Your task to perform on an android device: Is it going to rain today? Image 0: 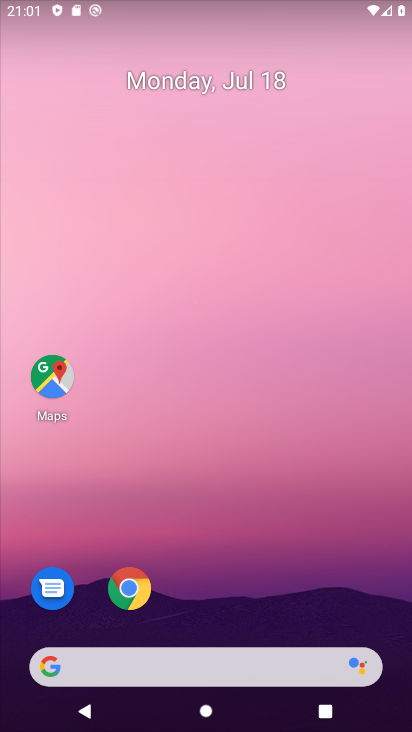
Step 0: press home button
Your task to perform on an android device: Is it going to rain today? Image 1: 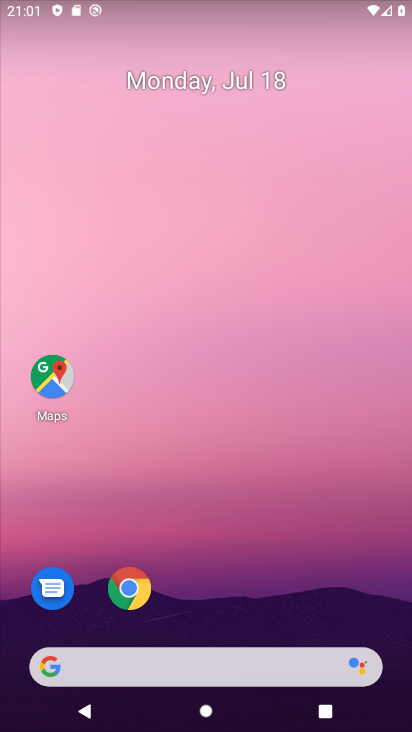
Step 1: click (133, 660)
Your task to perform on an android device: Is it going to rain today? Image 2: 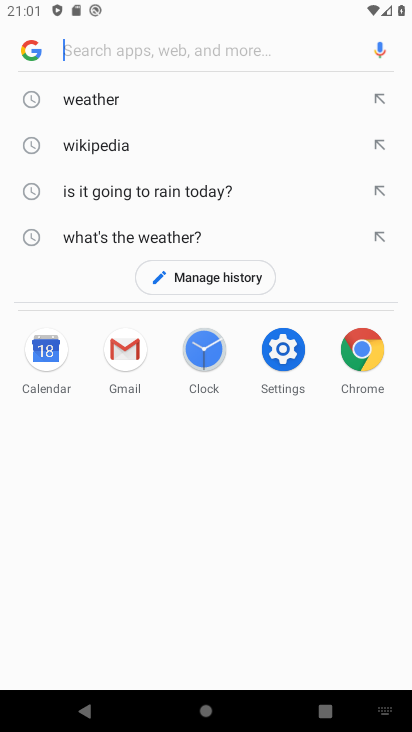
Step 2: click (171, 191)
Your task to perform on an android device: Is it going to rain today? Image 3: 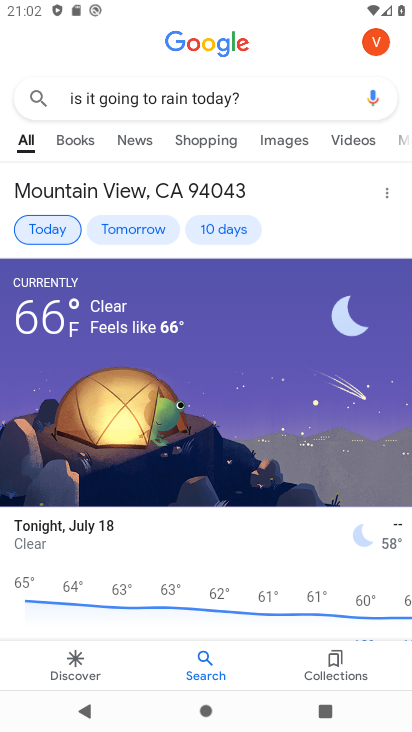
Step 3: task complete